Your task to perform on an android device: add a label to a message in the gmail app Image 0: 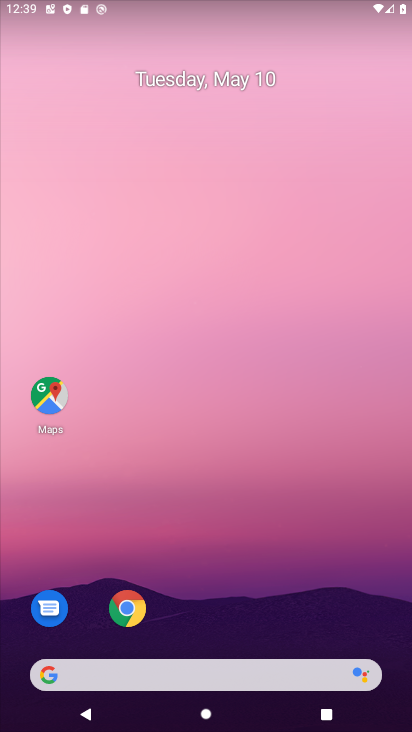
Step 0: drag from (211, 613) to (224, 89)
Your task to perform on an android device: add a label to a message in the gmail app Image 1: 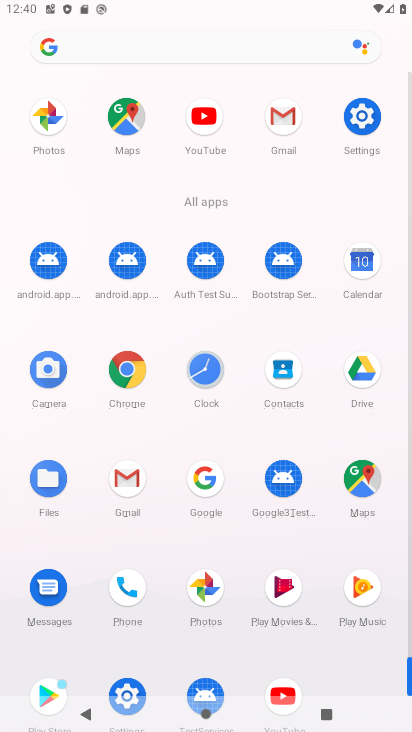
Step 1: click (279, 117)
Your task to perform on an android device: add a label to a message in the gmail app Image 2: 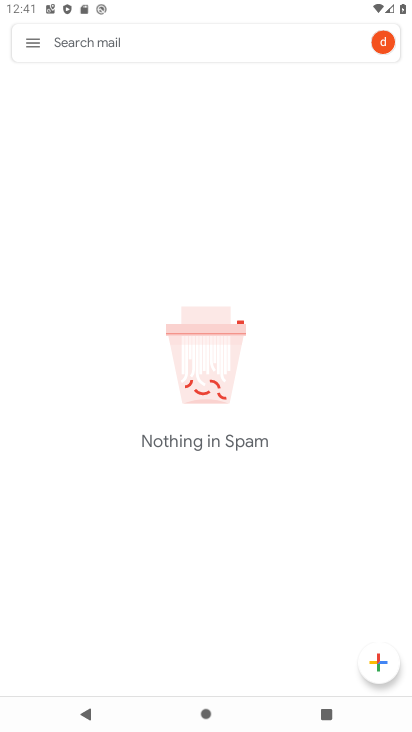
Step 2: task complete